Your task to perform on an android device: Open accessibility settings Image 0: 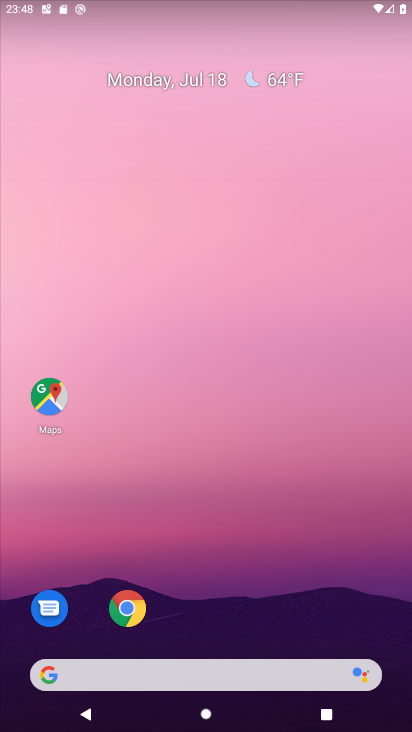
Step 0: drag from (242, 597) to (295, 169)
Your task to perform on an android device: Open accessibility settings Image 1: 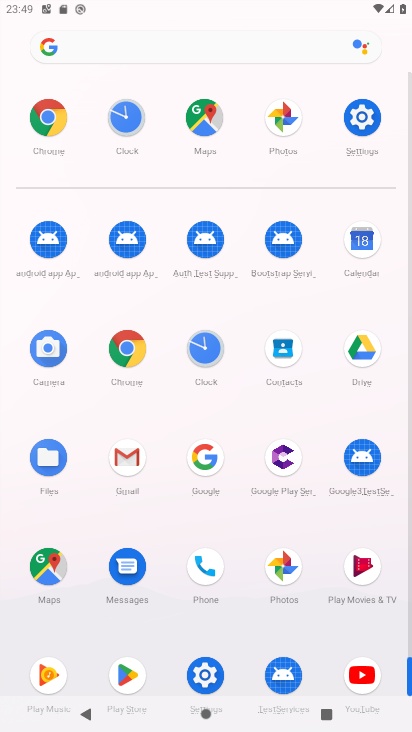
Step 1: click (355, 136)
Your task to perform on an android device: Open accessibility settings Image 2: 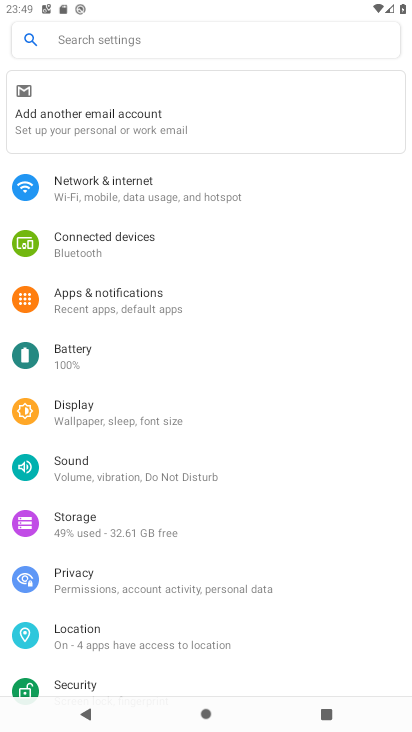
Step 2: drag from (194, 527) to (216, 210)
Your task to perform on an android device: Open accessibility settings Image 3: 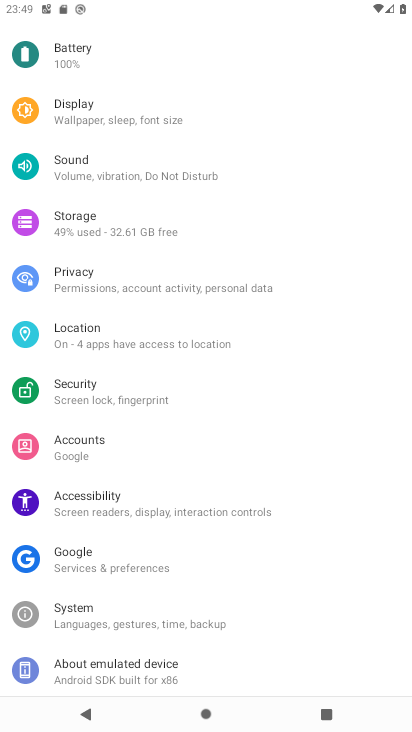
Step 3: click (170, 508)
Your task to perform on an android device: Open accessibility settings Image 4: 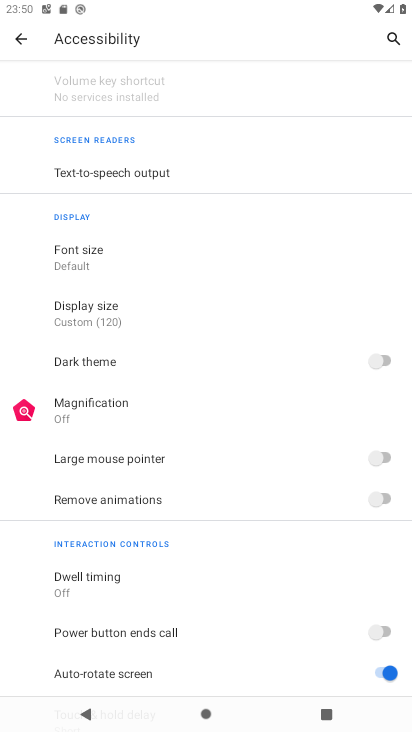
Step 4: task complete